Your task to perform on an android device: open chrome and create a bookmark for the current page Image 0: 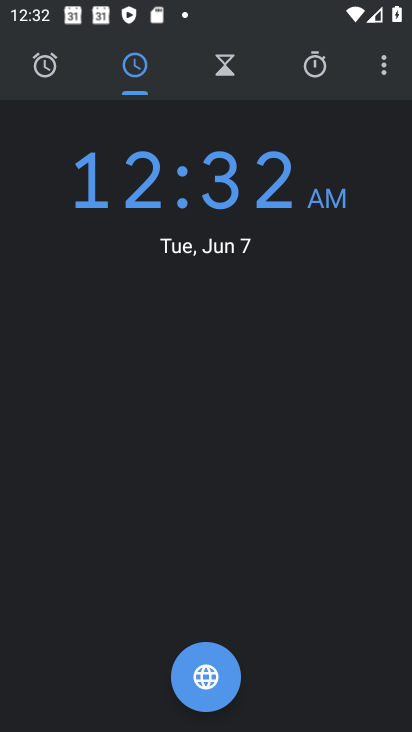
Step 0: press home button
Your task to perform on an android device: open chrome and create a bookmark for the current page Image 1: 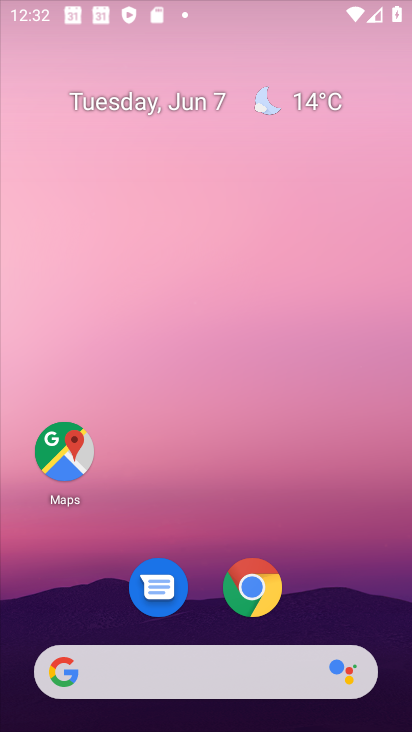
Step 1: drag from (219, 681) to (156, 68)
Your task to perform on an android device: open chrome and create a bookmark for the current page Image 2: 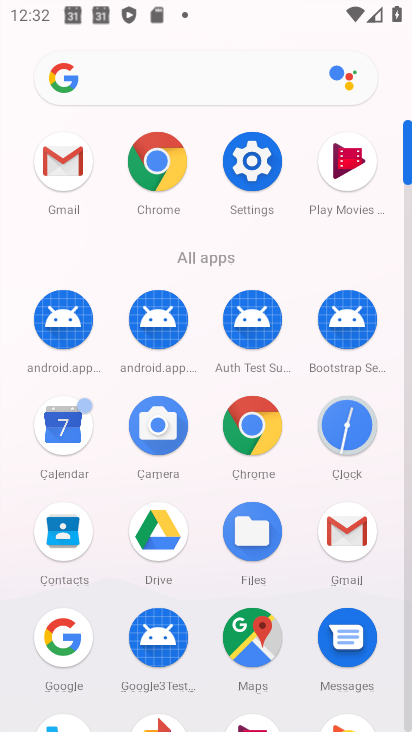
Step 2: drag from (223, 560) to (191, 282)
Your task to perform on an android device: open chrome and create a bookmark for the current page Image 3: 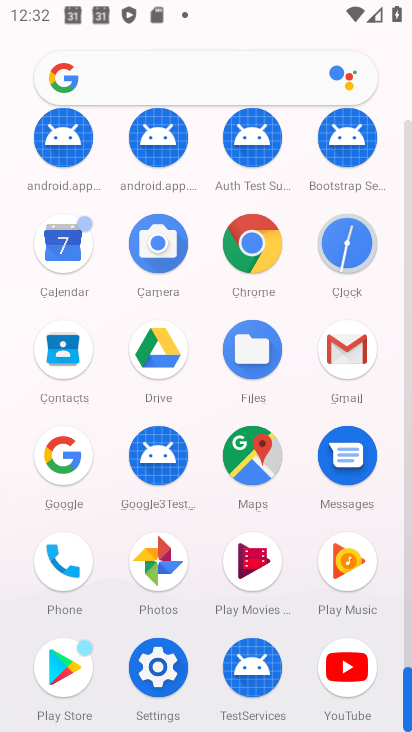
Step 3: click (256, 261)
Your task to perform on an android device: open chrome and create a bookmark for the current page Image 4: 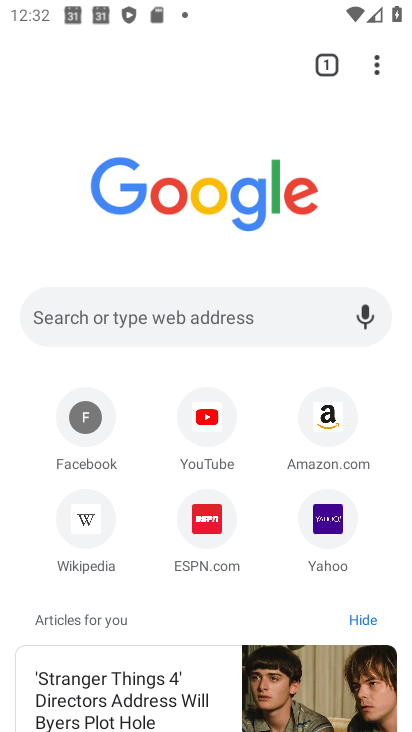
Step 4: click (375, 76)
Your task to perform on an android device: open chrome and create a bookmark for the current page Image 5: 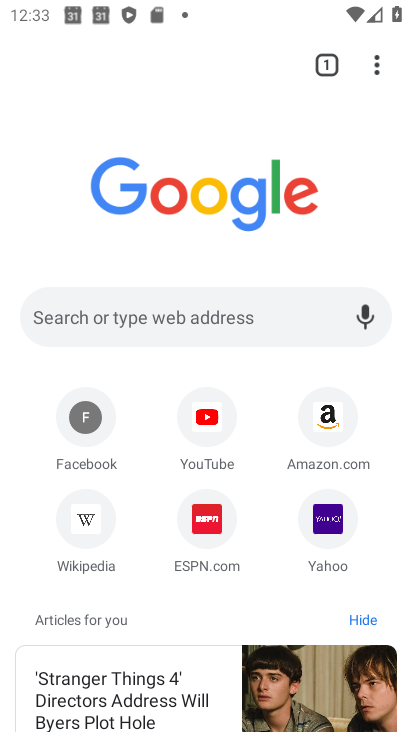
Step 5: click (375, 81)
Your task to perform on an android device: open chrome and create a bookmark for the current page Image 6: 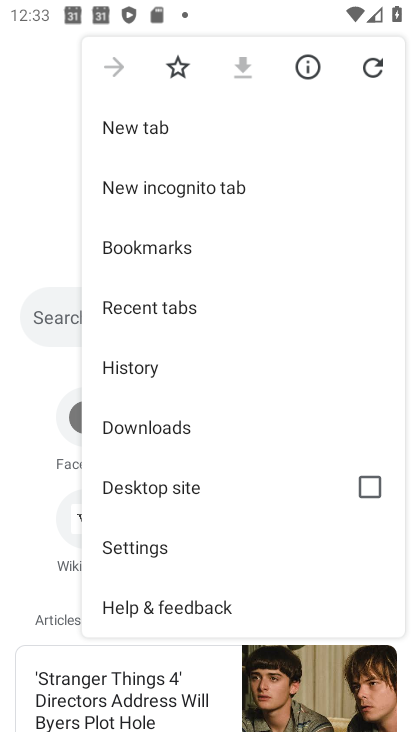
Step 6: click (173, 77)
Your task to perform on an android device: open chrome and create a bookmark for the current page Image 7: 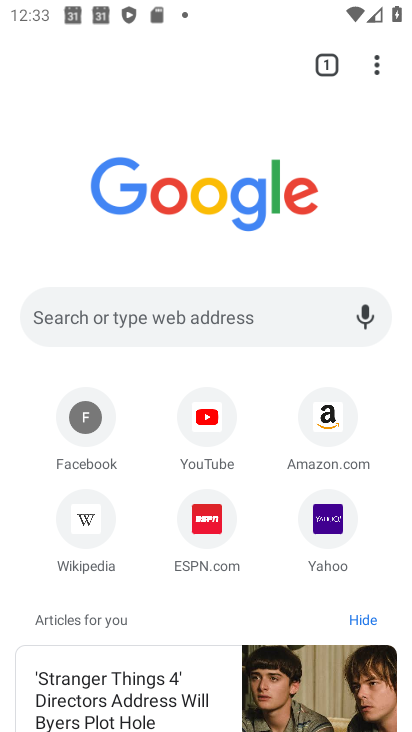
Step 7: task complete